Your task to perform on an android device: toggle priority inbox in the gmail app Image 0: 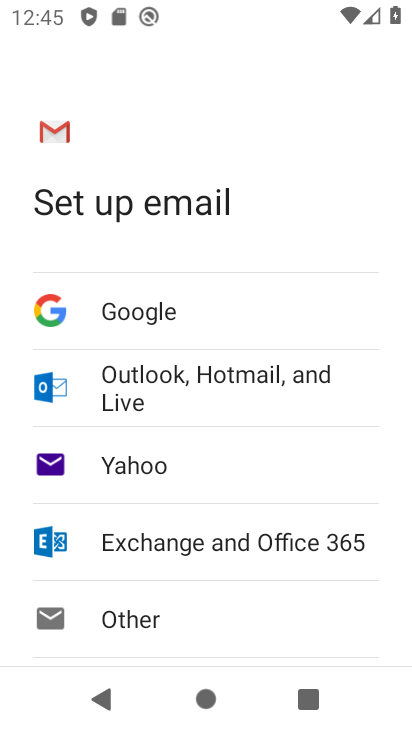
Step 0: press home button
Your task to perform on an android device: toggle priority inbox in the gmail app Image 1: 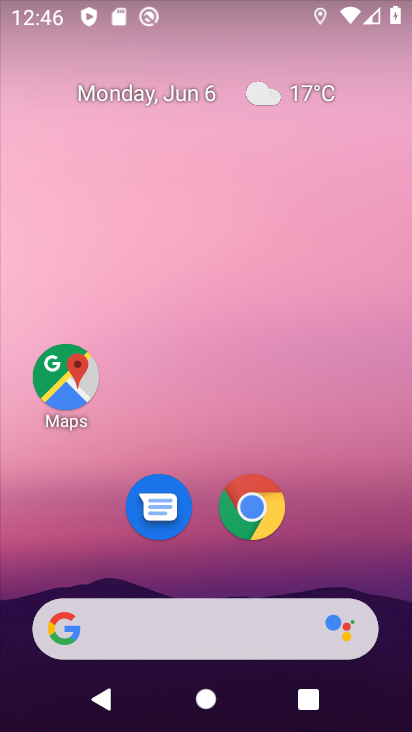
Step 1: drag from (323, 499) to (323, 318)
Your task to perform on an android device: toggle priority inbox in the gmail app Image 2: 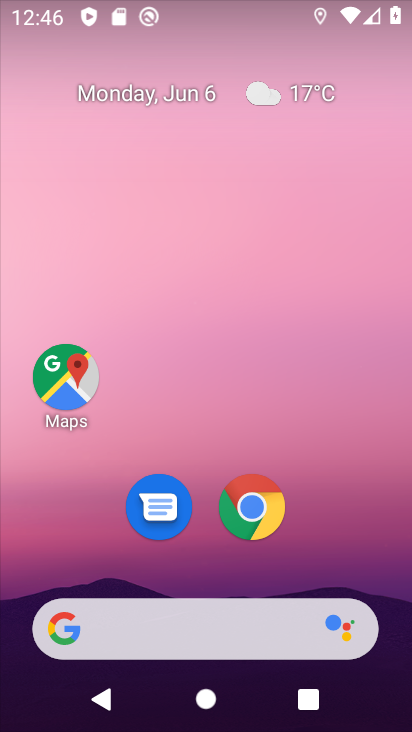
Step 2: drag from (338, 510) to (352, 31)
Your task to perform on an android device: toggle priority inbox in the gmail app Image 3: 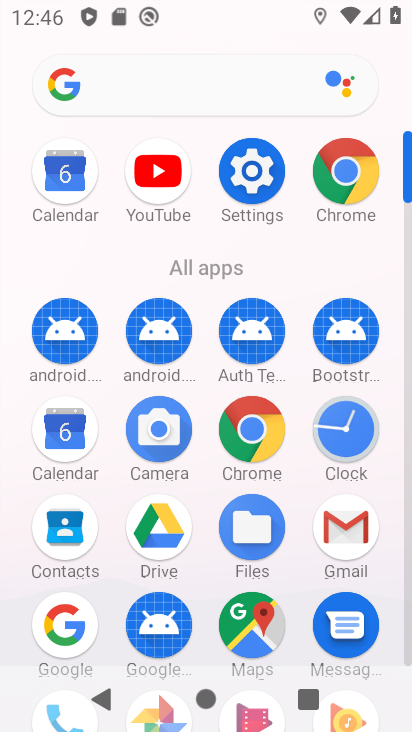
Step 3: click (340, 525)
Your task to perform on an android device: toggle priority inbox in the gmail app Image 4: 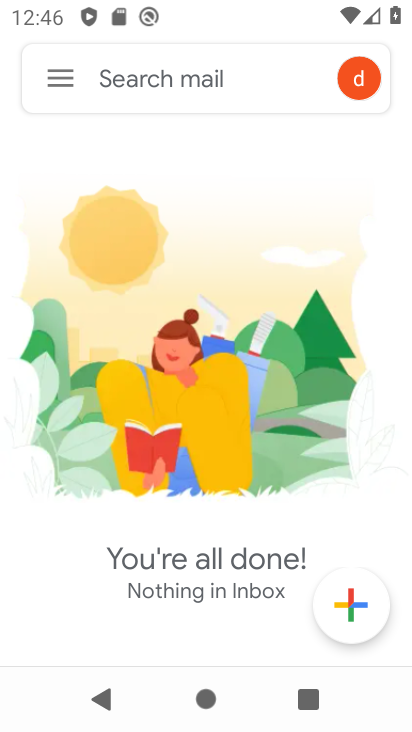
Step 4: click (60, 75)
Your task to perform on an android device: toggle priority inbox in the gmail app Image 5: 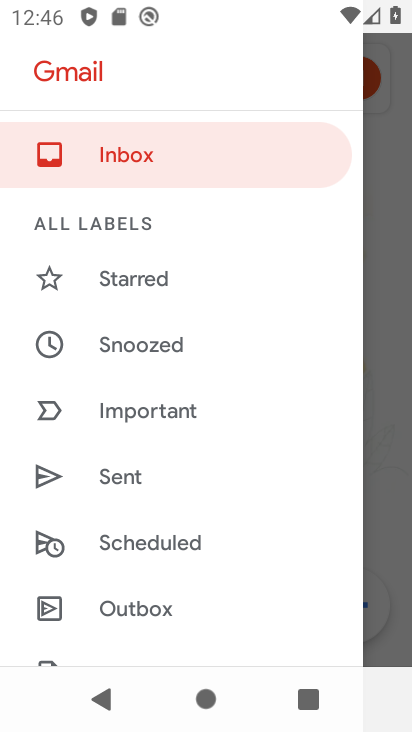
Step 5: drag from (170, 464) to (205, 189)
Your task to perform on an android device: toggle priority inbox in the gmail app Image 6: 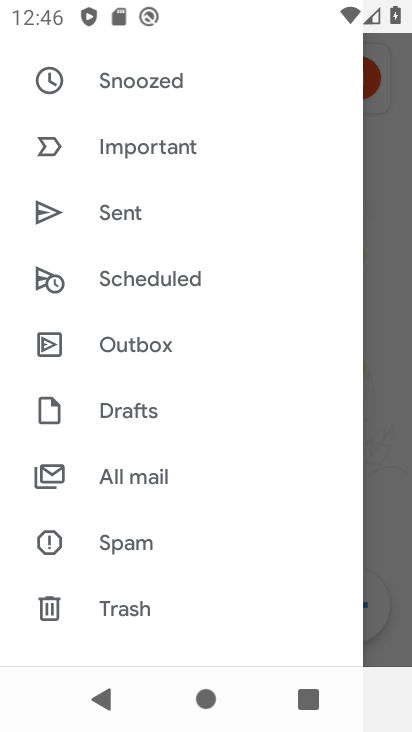
Step 6: drag from (200, 399) to (226, 144)
Your task to perform on an android device: toggle priority inbox in the gmail app Image 7: 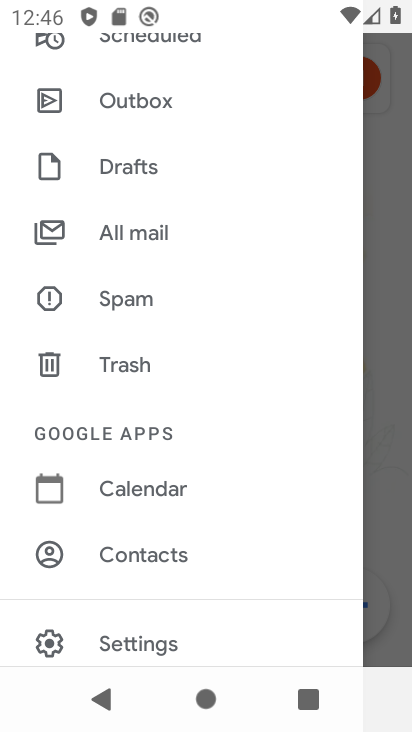
Step 7: click (156, 645)
Your task to perform on an android device: toggle priority inbox in the gmail app Image 8: 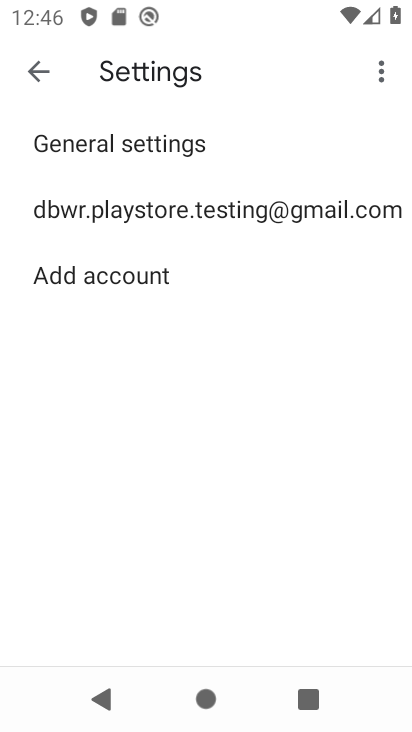
Step 8: click (279, 213)
Your task to perform on an android device: toggle priority inbox in the gmail app Image 9: 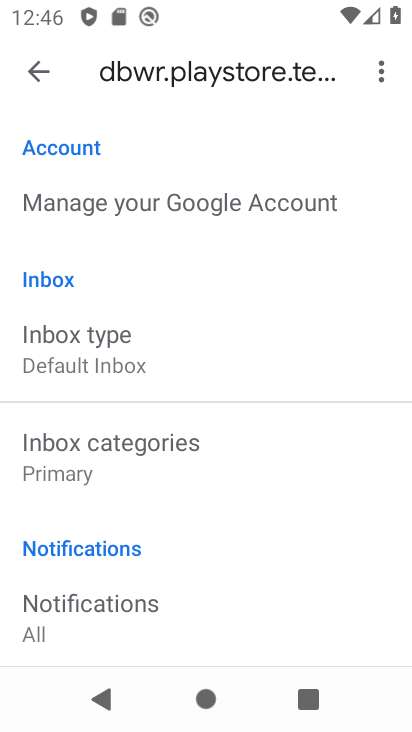
Step 9: click (82, 353)
Your task to perform on an android device: toggle priority inbox in the gmail app Image 10: 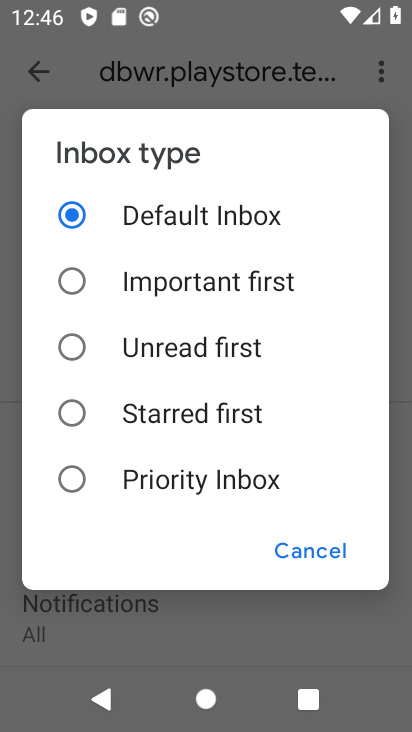
Step 10: click (75, 470)
Your task to perform on an android device: toggle priority inbox in the gmail app Image 11: 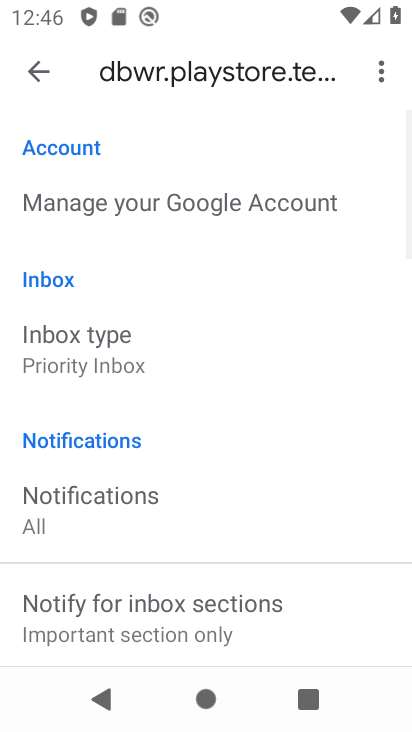
Step 11: task complete